Your task to perform on an android device: snooze an email in the gmail app Image 0: 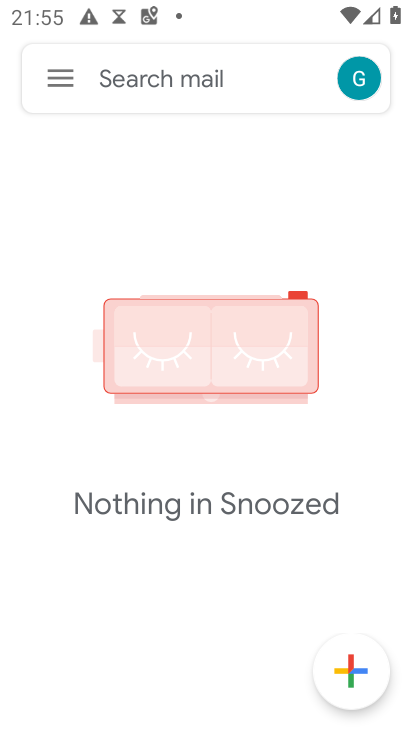
Step 0: click (57, 78)
Your task to perform on an android device: snooze an email in the gmail app Image 1: 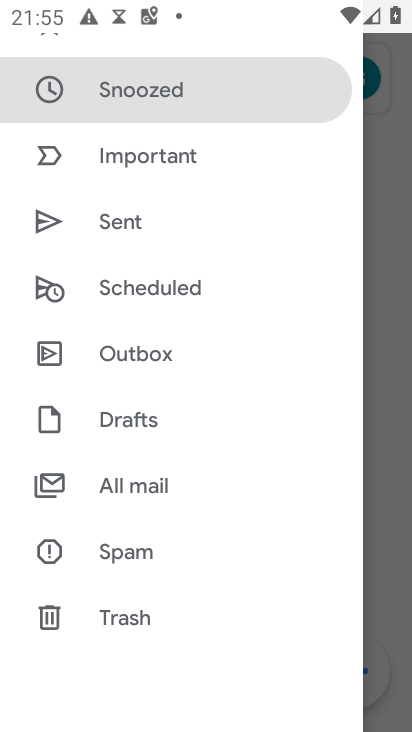
Step 1: click (174, 478)
Your task to perform on an android device: snooze an email in the gmail app Image 2: 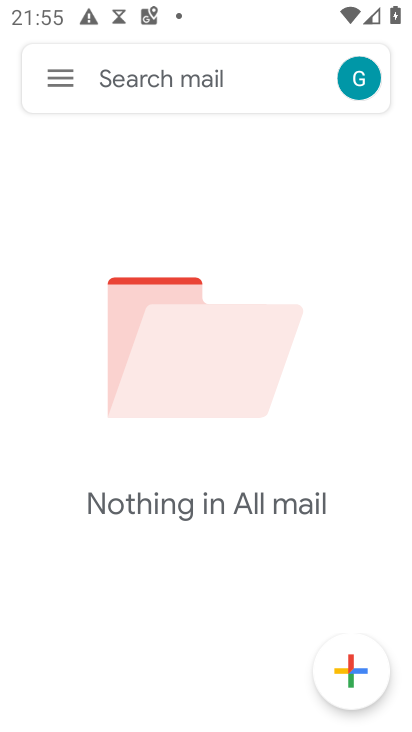
Step 2: task complete